Your task to perform on an android device: turn on data saver in the chrome app Image 0: 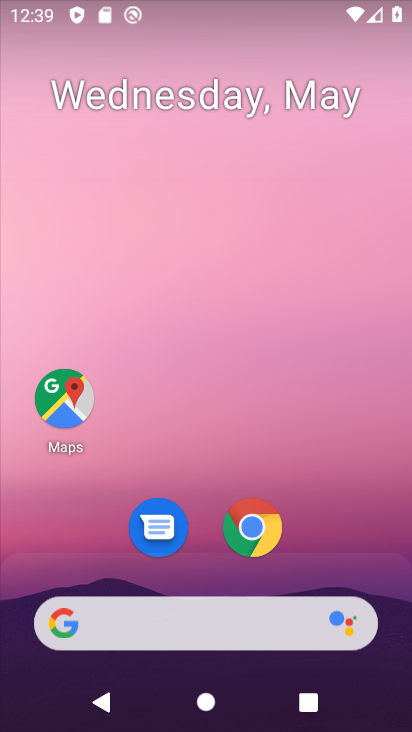
Step 0: click (247, 557)
Your task to perform on an android device: turn on data saver in the chrome app Image 1: 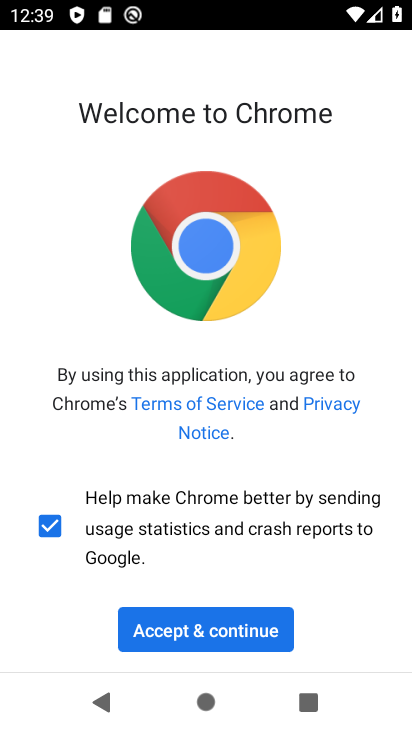
Step 1: click (208, 627)
Your task to perform on an android device: turn on data saver in the chrome app Image 2: 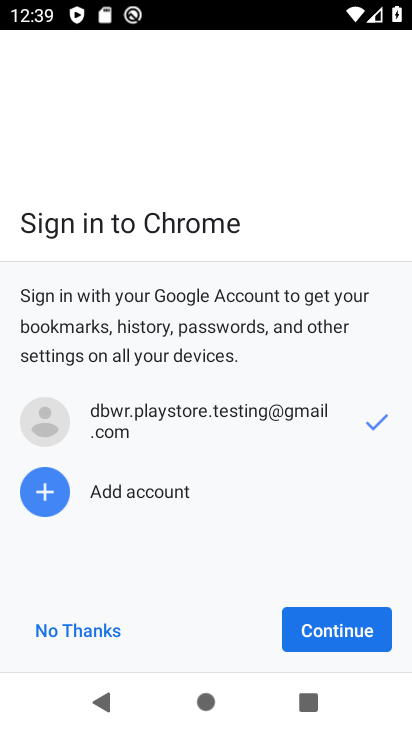
Step 2: click (320, 638)
Your task to perform on an android device: turn on data saver in the chrome app Image 3: 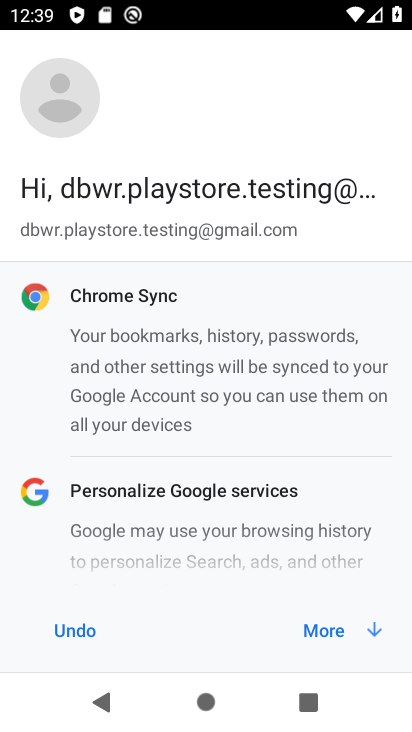
Step 3: click (320, 638)
Your task to perform on an android device: turn on data saver in the chrome app Image 4: 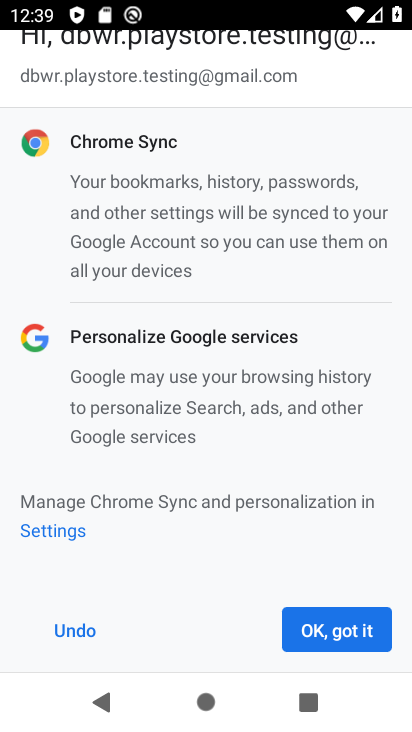
Step 4: click (320, 638)
Your task to perform on an android device: turn on data saver in the chrome app Image 5: 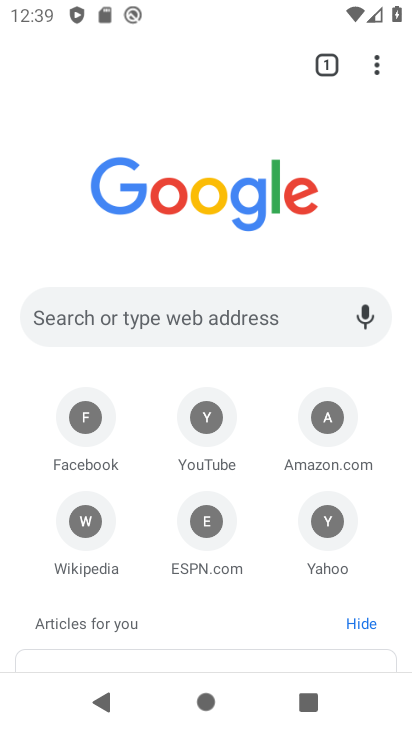
Step 5: click (381, 56)
Your task to perform on an android device: turn on data saver in the chrome app Image 6: 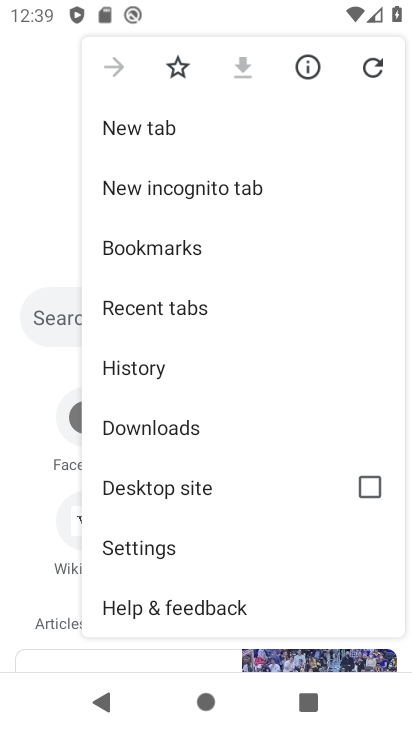
Step 6: click (157, 550)
Your task to perform on an android device: turn on data saver in the chrome app Image 7: 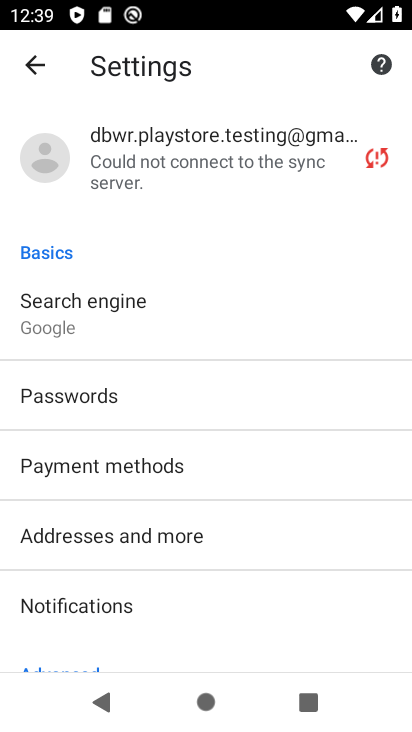
Step 7: drag from (132, 635) to (209, 272)
Your task to perform on an android device: turn on data saver in the chrome app Image 8: 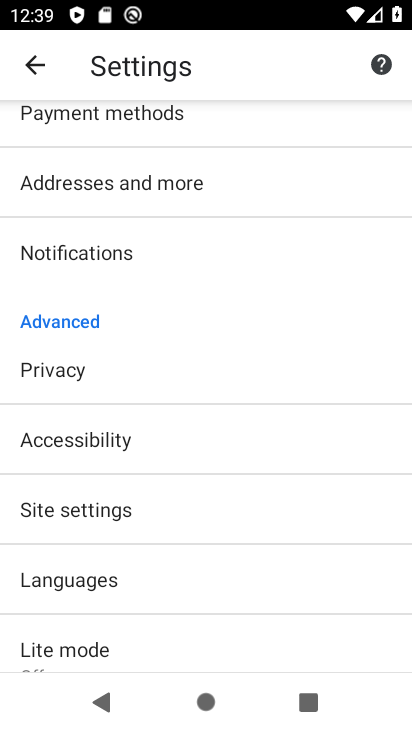
Step 8: drag from (135, 648) to (145, 259)
Your task to perform on an android device: turn on data saver in the chrome app Image 9: 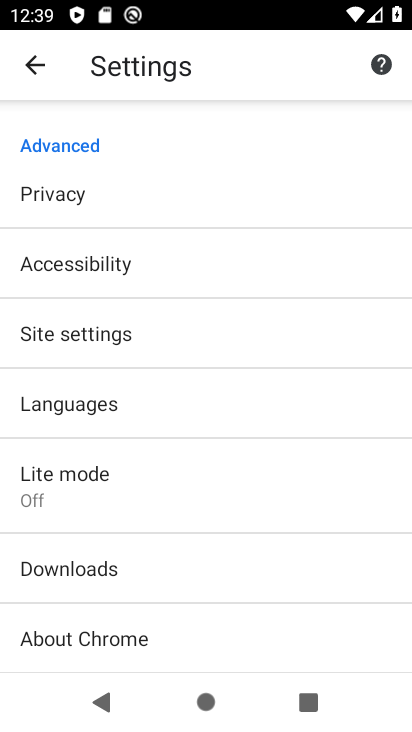
Step 9: click (85, 490)
Your task to perform on an android device: turn on data saver in the chrome app Image 10: 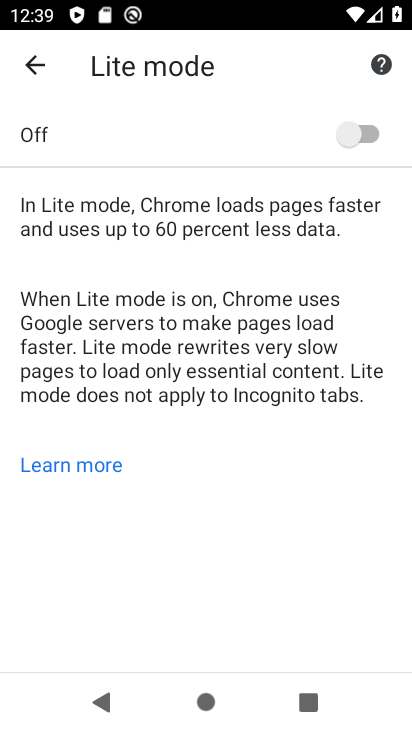
Step 10: click (364, 142)
Your task to perform on an android device: turn on data saver in the chrome app Image 11: 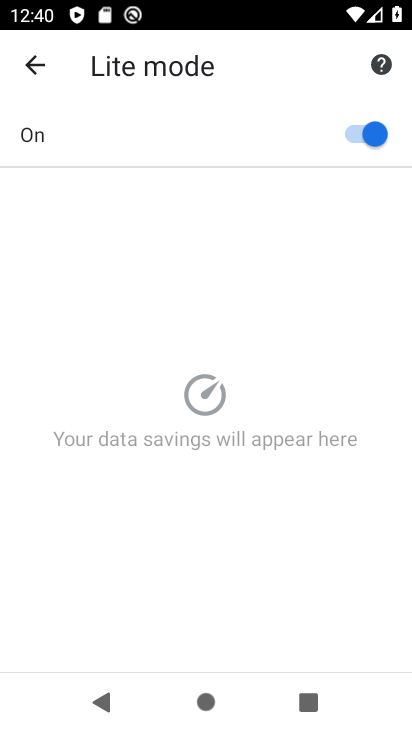
Step 11: task complete